Your task to perform on an android device: Open the calendar and show me this week's events? Image 0: 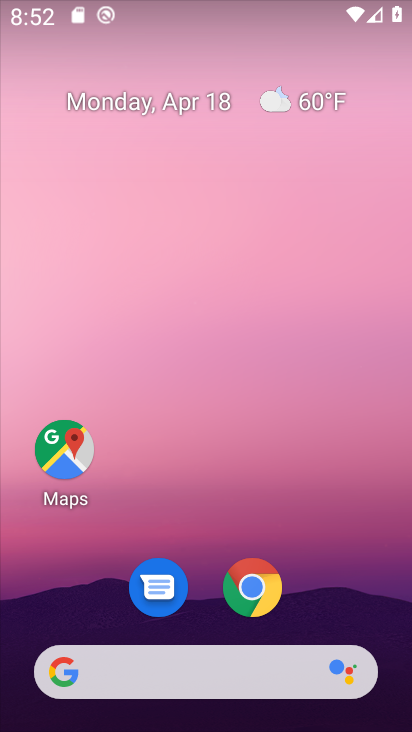
Step 0: drag from (324, 589) to (321, 158)
Your task to perform on an android device: Open the calendar and show me this week's events? Image 1: 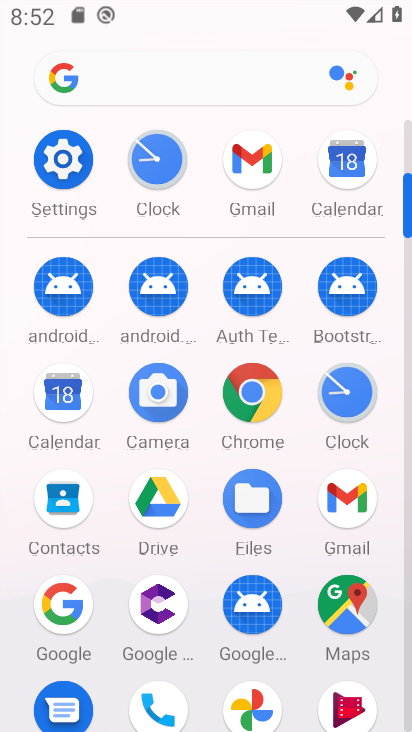
Step 1: click (44, 388)
Your task to perform on an android device: Open the calendar and show me this week's events? Image 2: 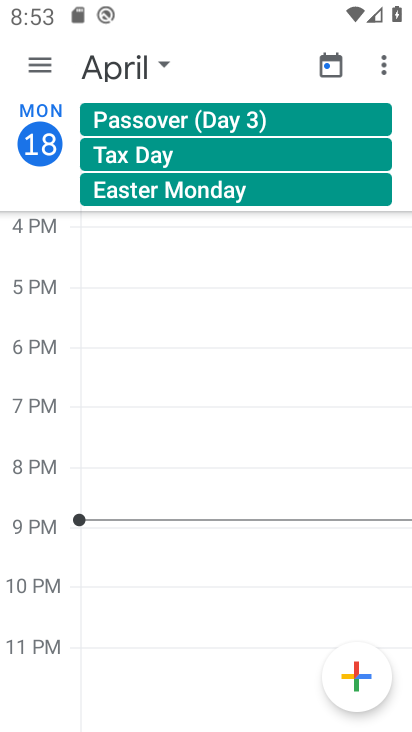
Step 2: click (42, 64)
Your task to perform on an android device: Open the calendar and show me this week's events? Image 3: 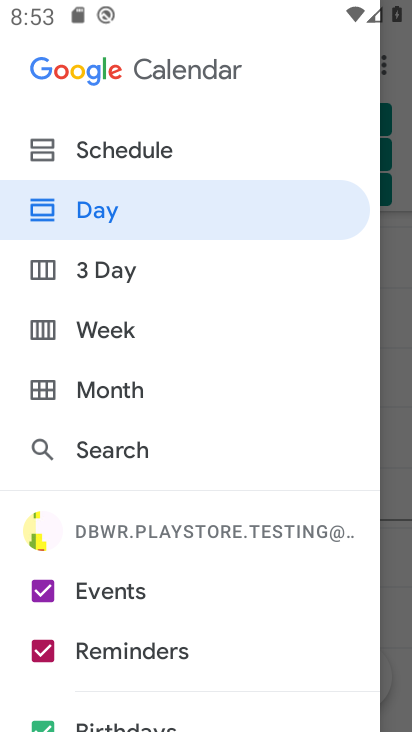
Step 3: click (408, 274)
Your task to perform on an android device: Open the calendar and show me this week's events? Image 4: 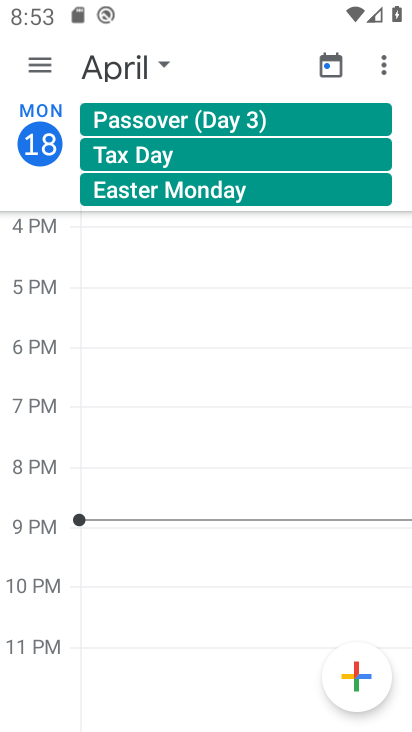
Step 4: click (134, 64)
Your task to perform on an android device: Open the calendar and show me this week's events? Image 5: 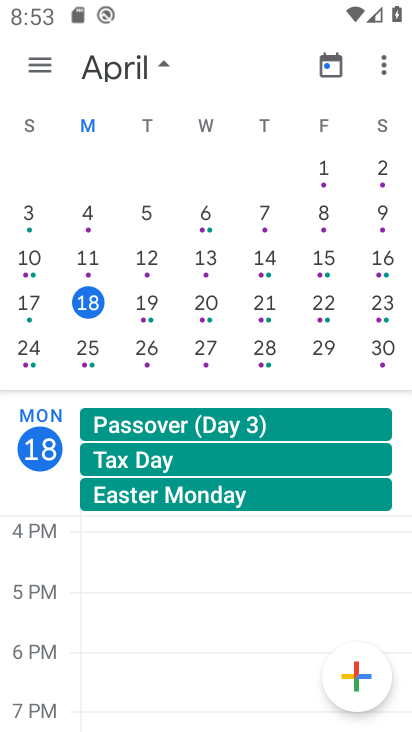
Step 5: click (139, 79)
Your task to perform on an android device: Open the calendar and show me this week's events? Image 6: 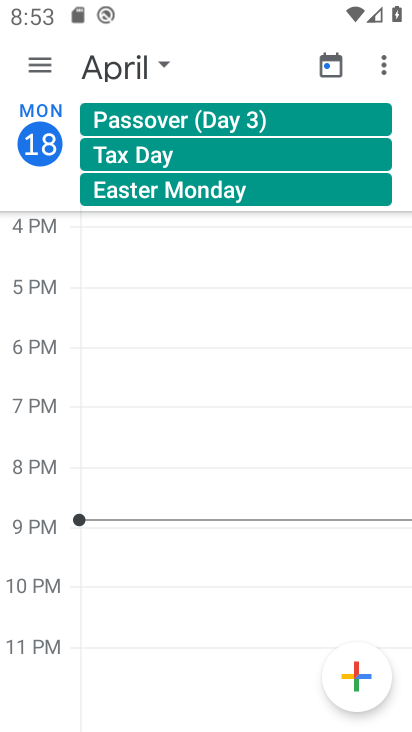
Step 6: click (39, 129)
Your task to perform on an android device: Open the calendar and show me this week's events? Image 7: 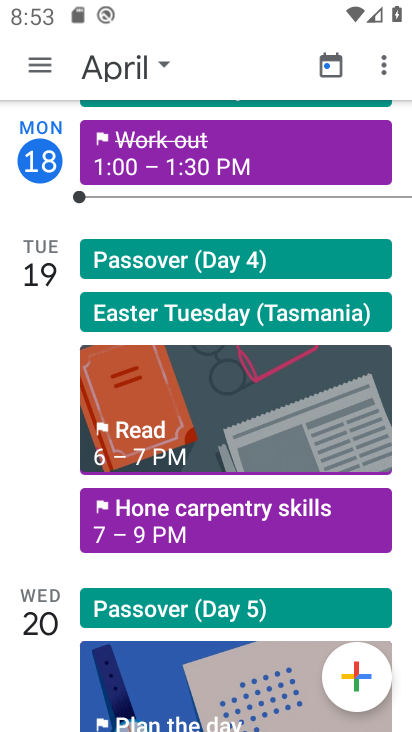
Step 7: drag from (28, 556) to (14, 203)
Your task to perform on an android device: Open the calendar and show me this week's events? Image 8: 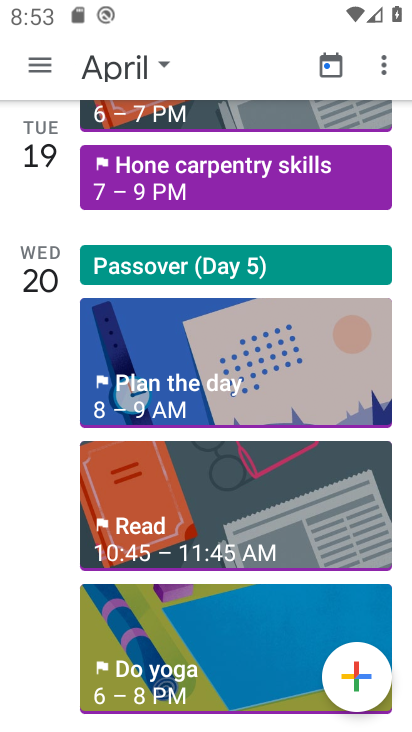
Step 8: drag from (39, 654) to (60, 155)
Your task to perform on an android device: Open the calendar and show me this week's events? Image 9: 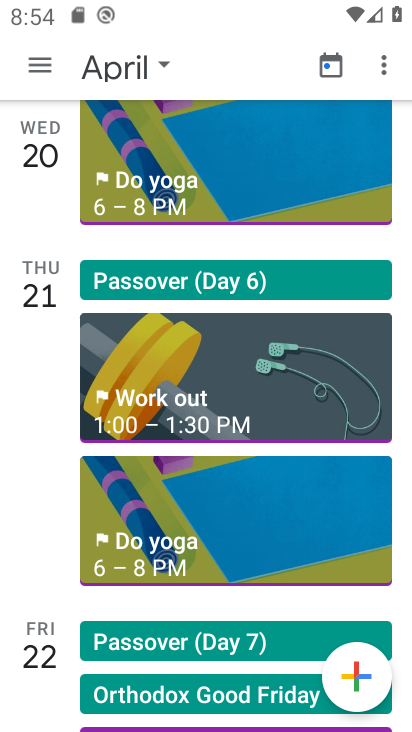
Step 9: drag from (43, 553) to (64, 171)
Your task to perform on an android device: Open the calendar and show me this week's events? Image 10: 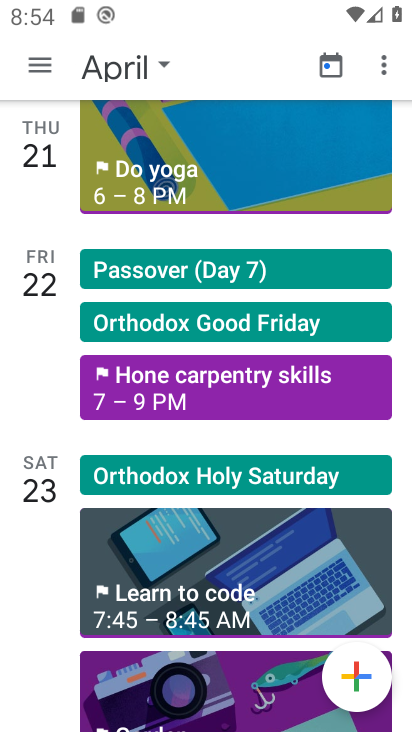
Step 10: drag from (24, 606) to (37, 199)
Your task to perform on an android device: Open the calendar and show me this week's events? Image 11: 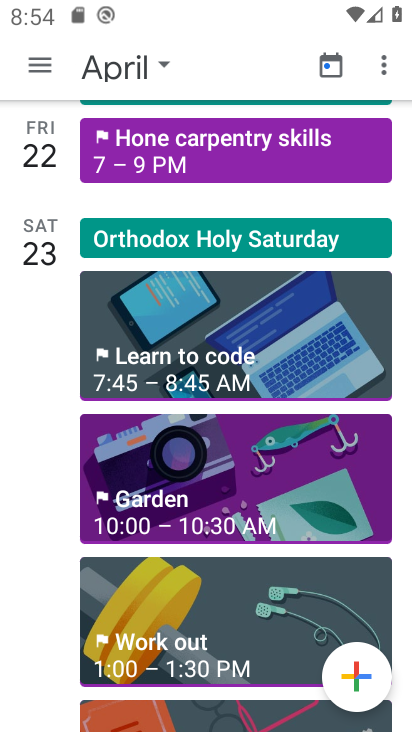
Step 11: drag from (29, 609) to (89, 304)
Your task to perform on an android device: Open the calendar and show me this week's events? Image 12: 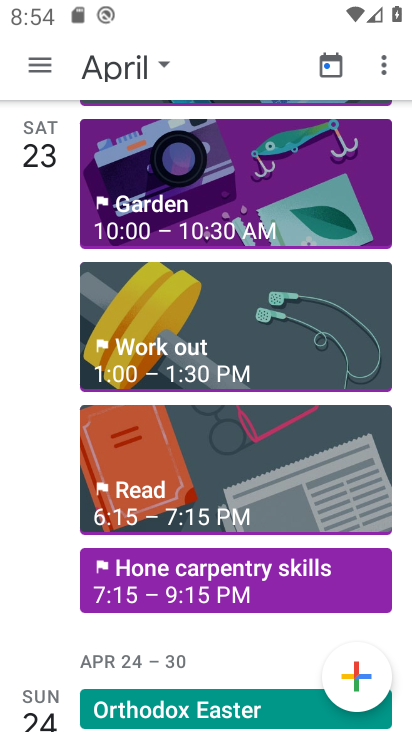
Step 12: drag from (35, 568) to (54, 96)
Your task to perform on an android device: Open the calendar and show me this week's events? Image 13: 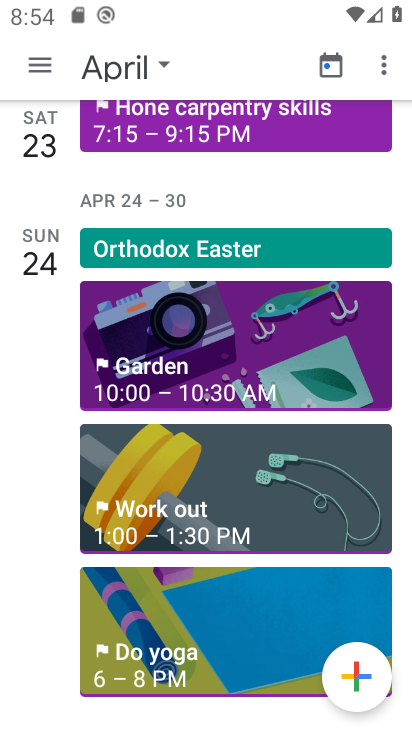
Step 13: drag from (61, 533) to (61, 262)
Your task to perform on an android device: Open the calendar and show me this week's events? Image 14: 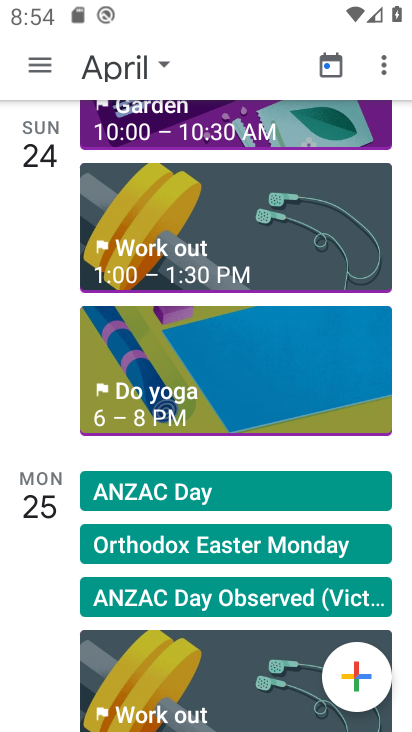
Step 14: click (48, 523)
Your task to perform on an android device: Open the calendar and show me this week's events? Image 15: 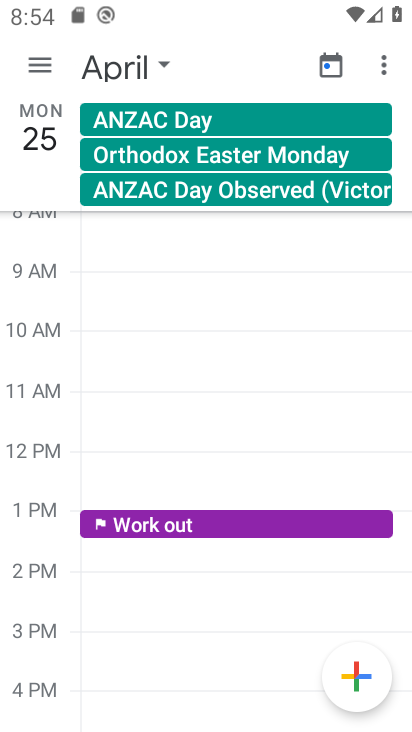
Step 15: task complete